Your task to perform on an android device: turn off wifi Image 0: 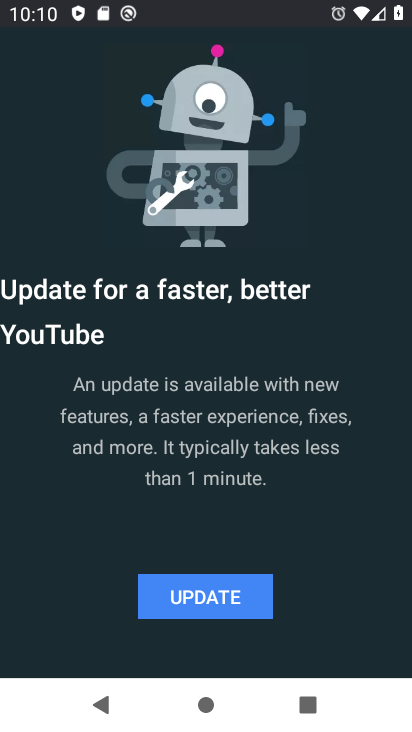
Step 0: press home button
Your task to perform on an android device: turn off wifi Image 1: 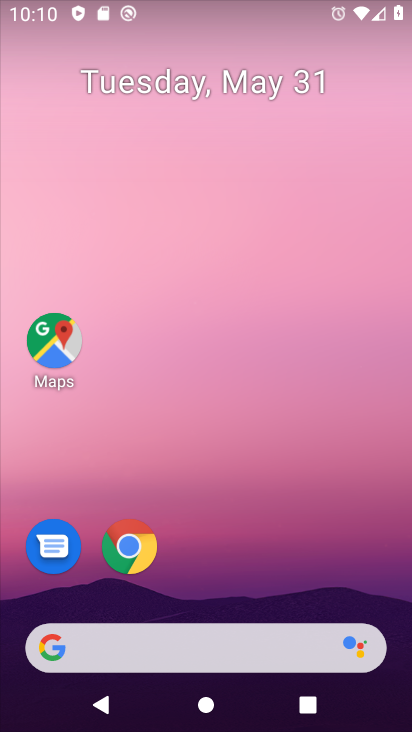
Step 1: drag from (114, 650) to (68, 5)
Your task to perform on an android device: turn off wifi Image 2: 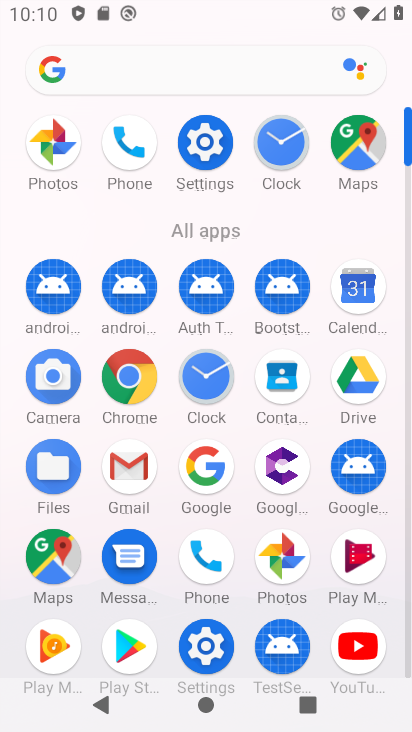
Step 2: click (200, 147)
Your task to perform on an android device: turn off wifi Image 3: 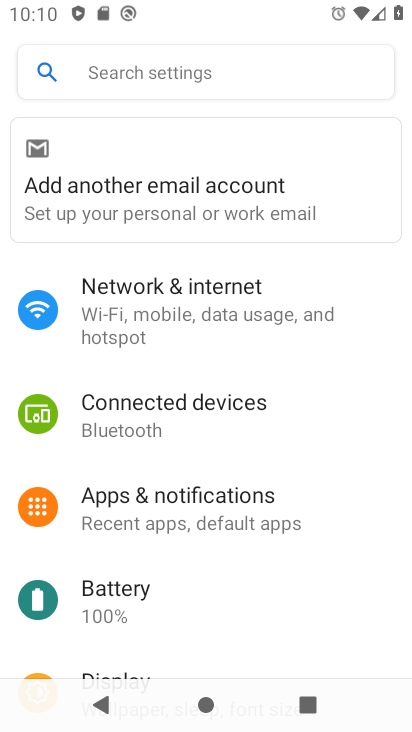
Step 3: click (176, 348)
Your task to perform on an android device: turn off wifi Image 4: 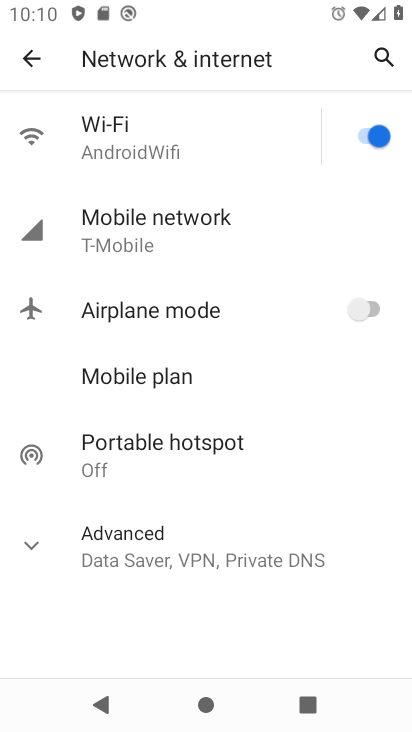
Step 4: click (347, 130)
Your task to perform on an android device: turn off wifi Image 5: 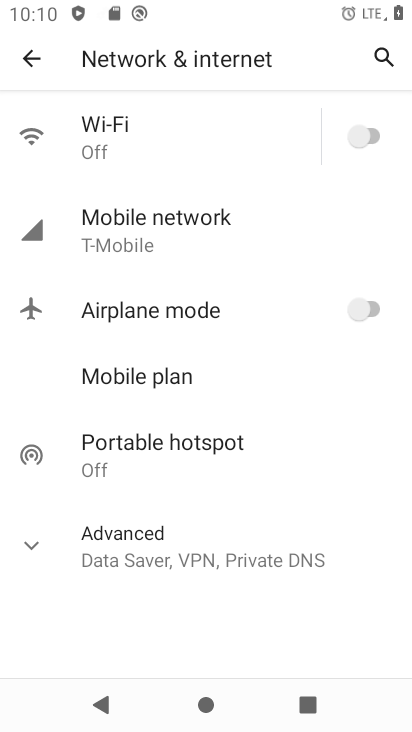
Step 5: task complete